Your task to perform on an android device: What's the weather today? Image 0: 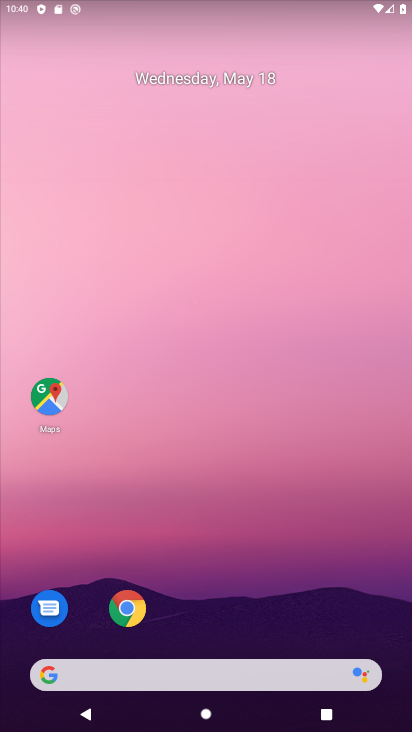
Step 0: press home button
Your task to perform on an android device: What's the weather today? Image 1: 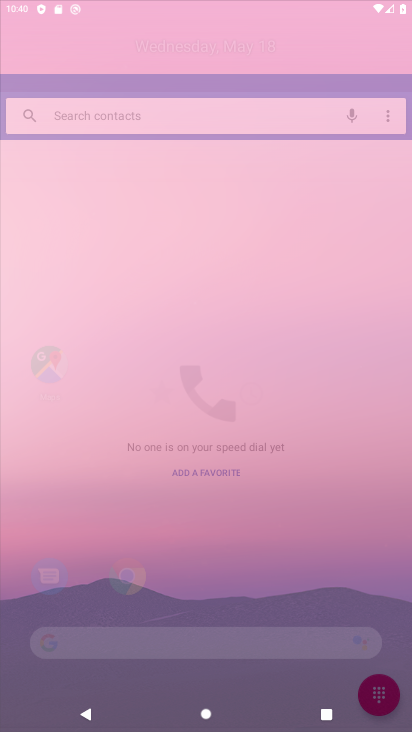
Step 1: drag from (322, 607) to (331, 15)
Your task to perform on an android device: What's the weather today? Image 2: 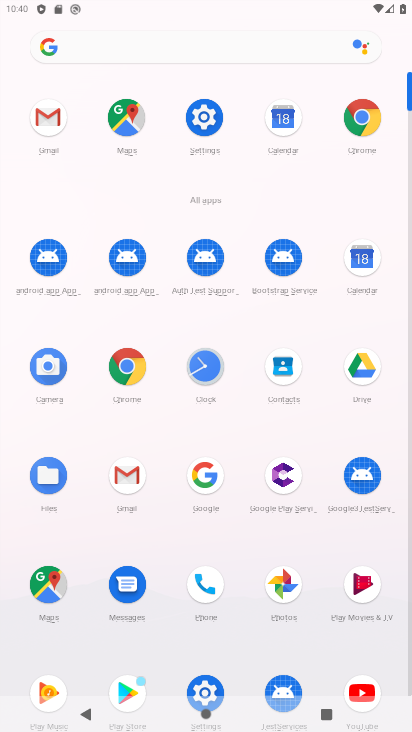
Step 2: click (124, 371)
Your task to perform on an android device: What's the weather today? Image 3: 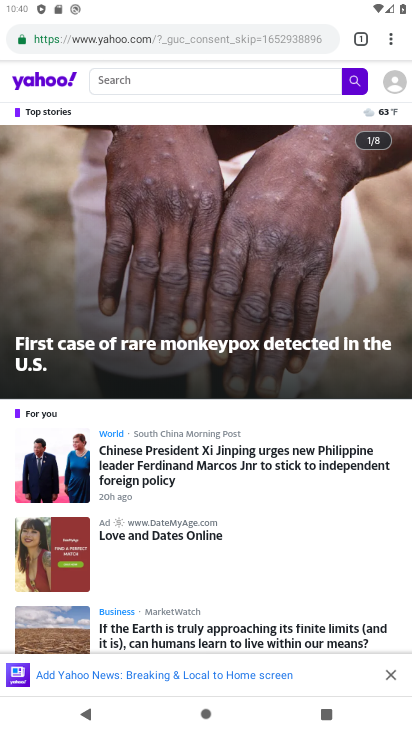
Step 3: click (172, 35)
Your task to perform on an android device: What's the weather today? Image 4: 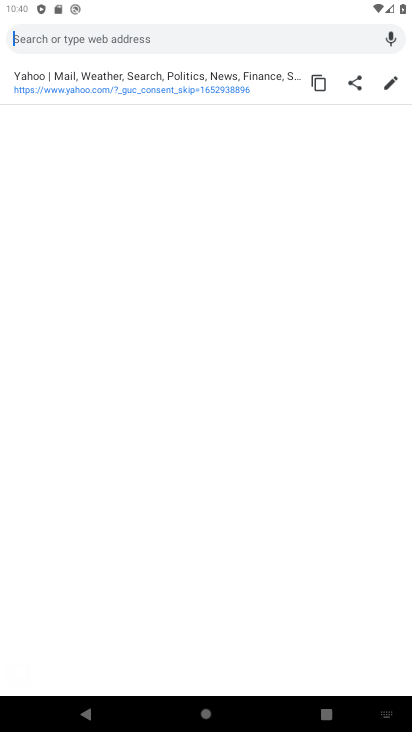
Step 4: type "What's the weather today?"
Your task to perform on an android device: What's the weather today? Image 5: 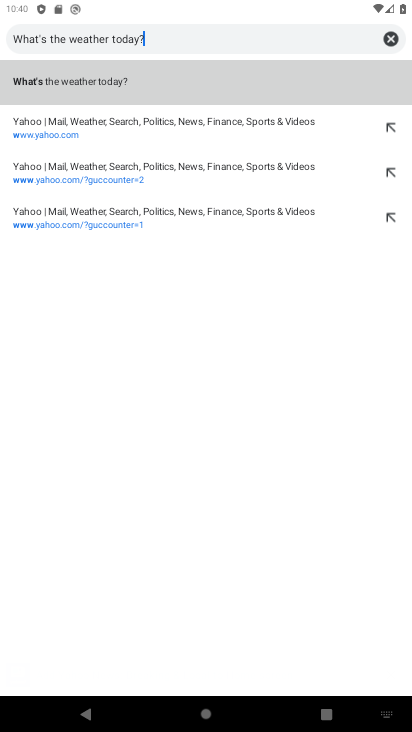
Step 5: click (121, 75)
Your task to perform on an android device: What's the weather today? Image 6: 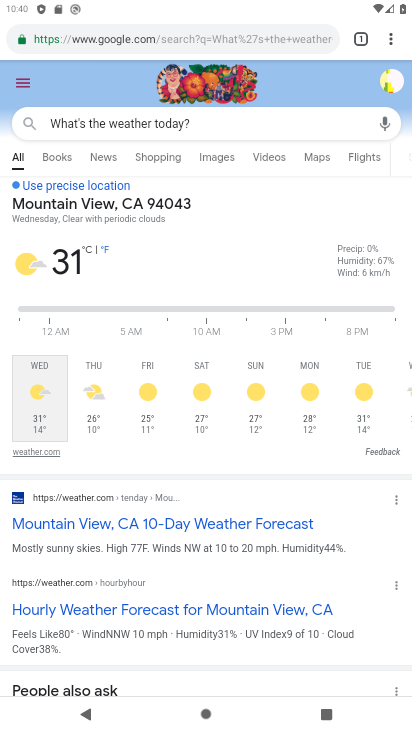
Step 6: task complete